Your task to perform on an android device: install app "Facebook Messenger" Image 0: 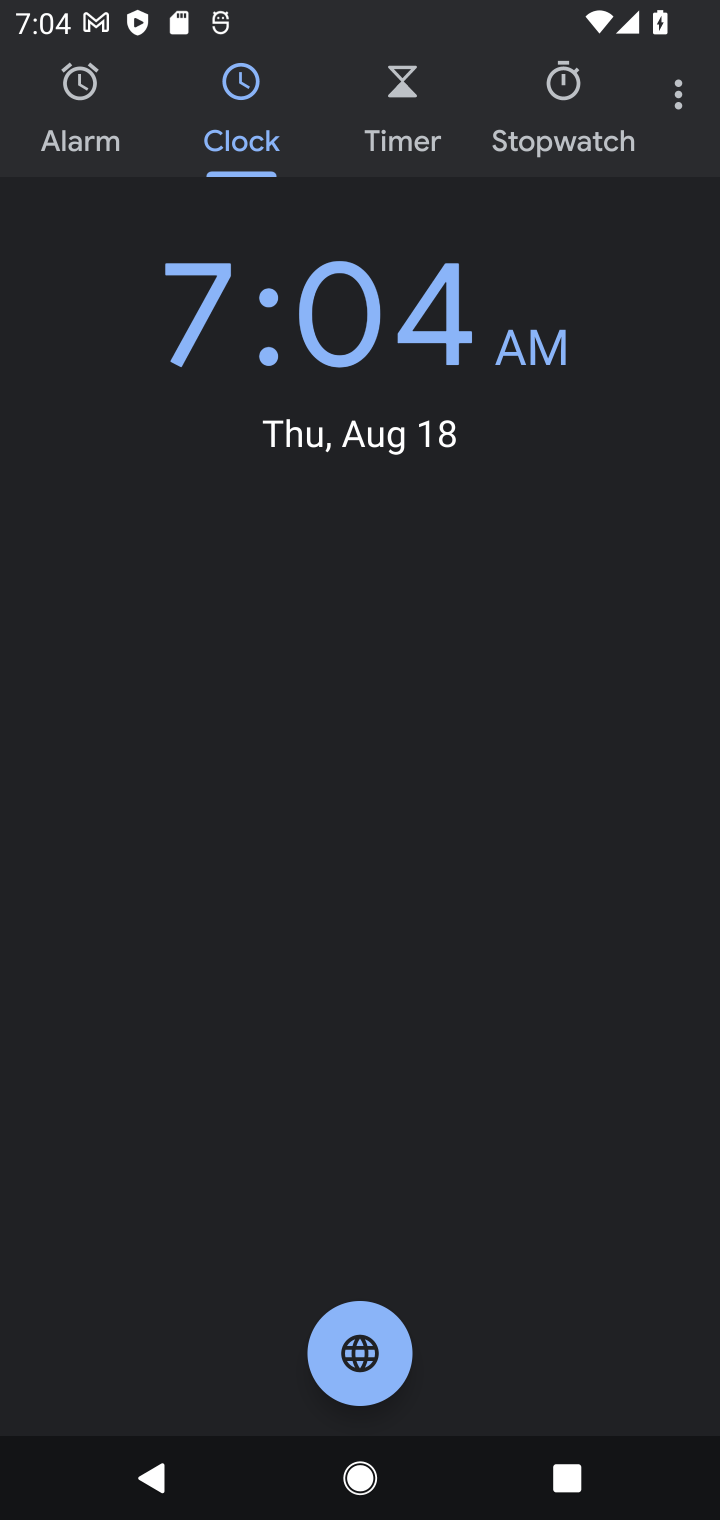
Step 0: press back button
Your task to perform on an android device: install app "Facebook Messenger" Image 1: 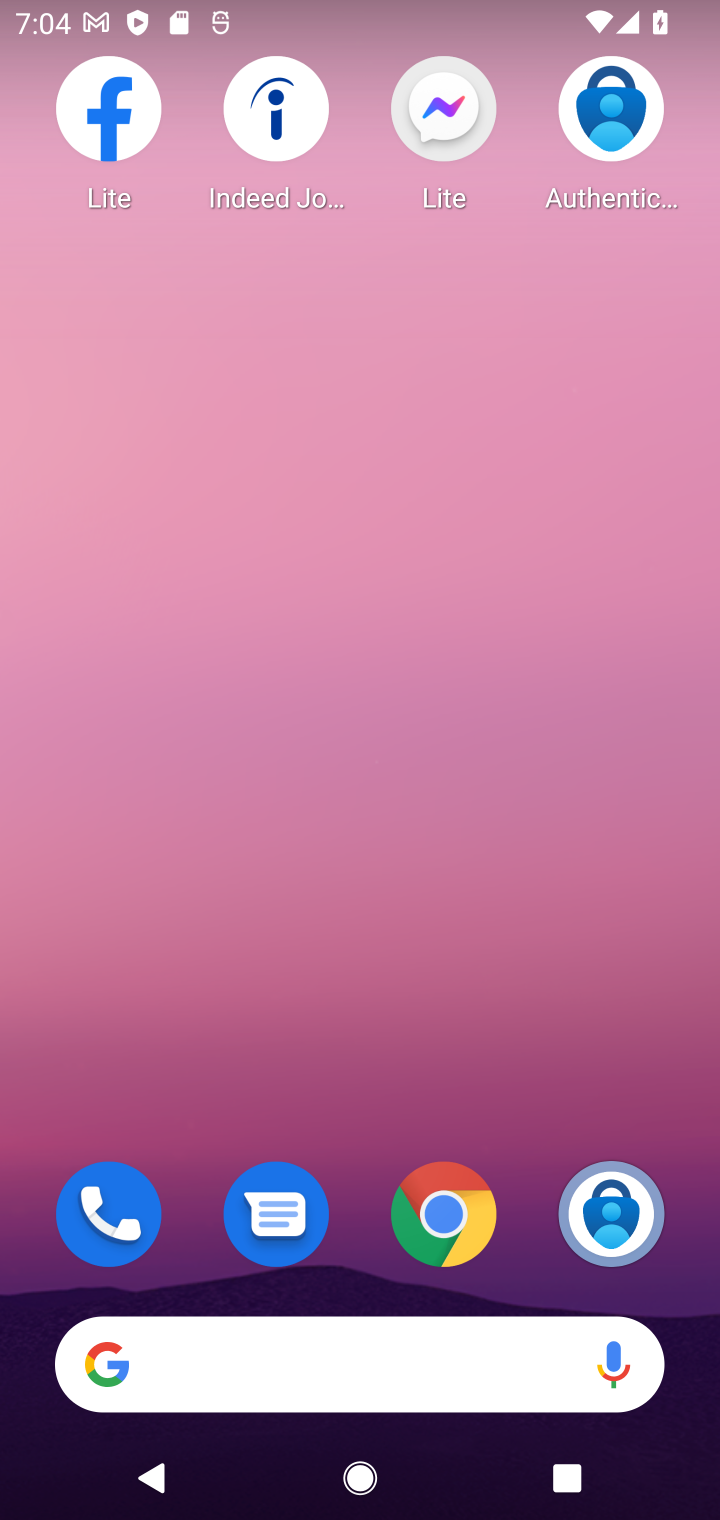
Step 1: drag from (374, 861) to (486, 103)
Your task to perform on an android device: install app "Facebook Messenger" Image 2: 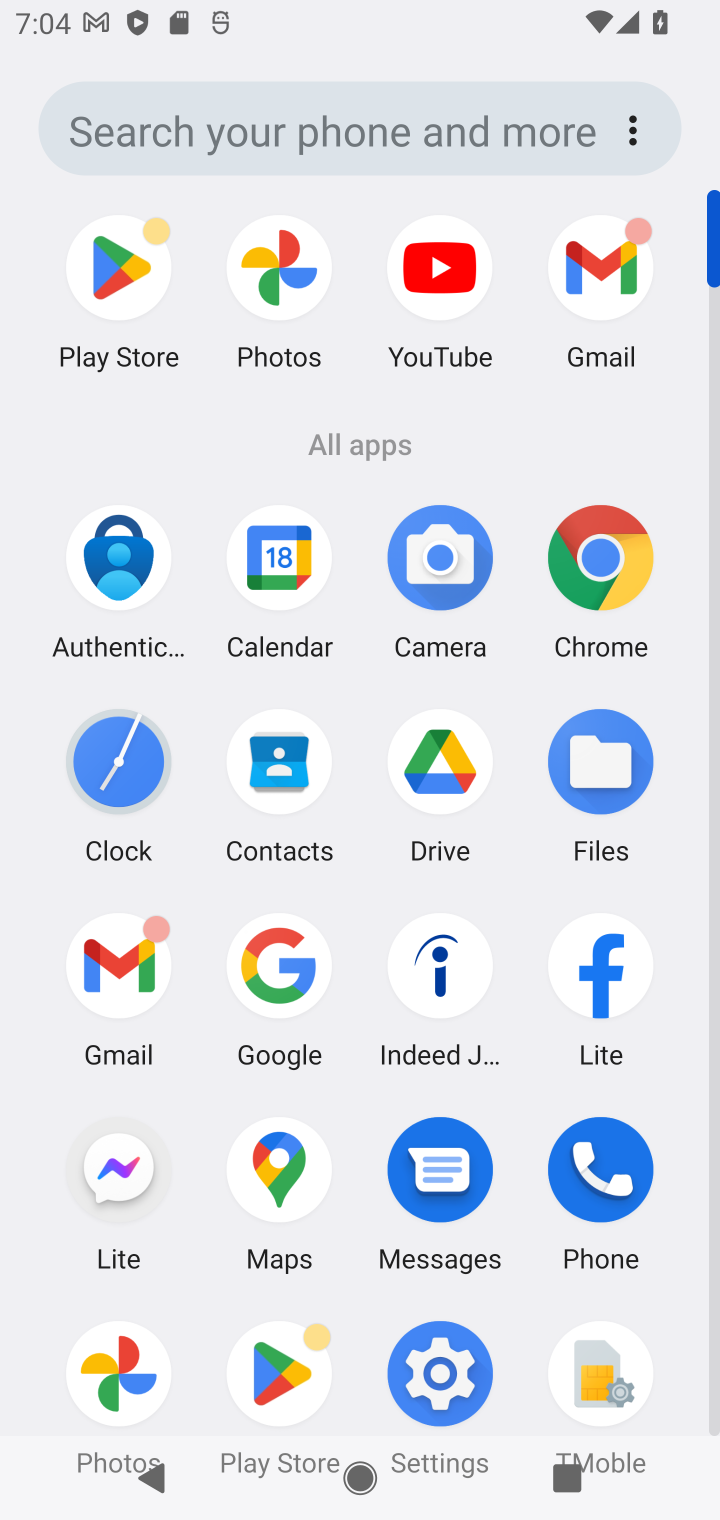
Step 2: click (270, 1388)
Your task to perform on an android device: install app "Facebook Messenger" Image 3: 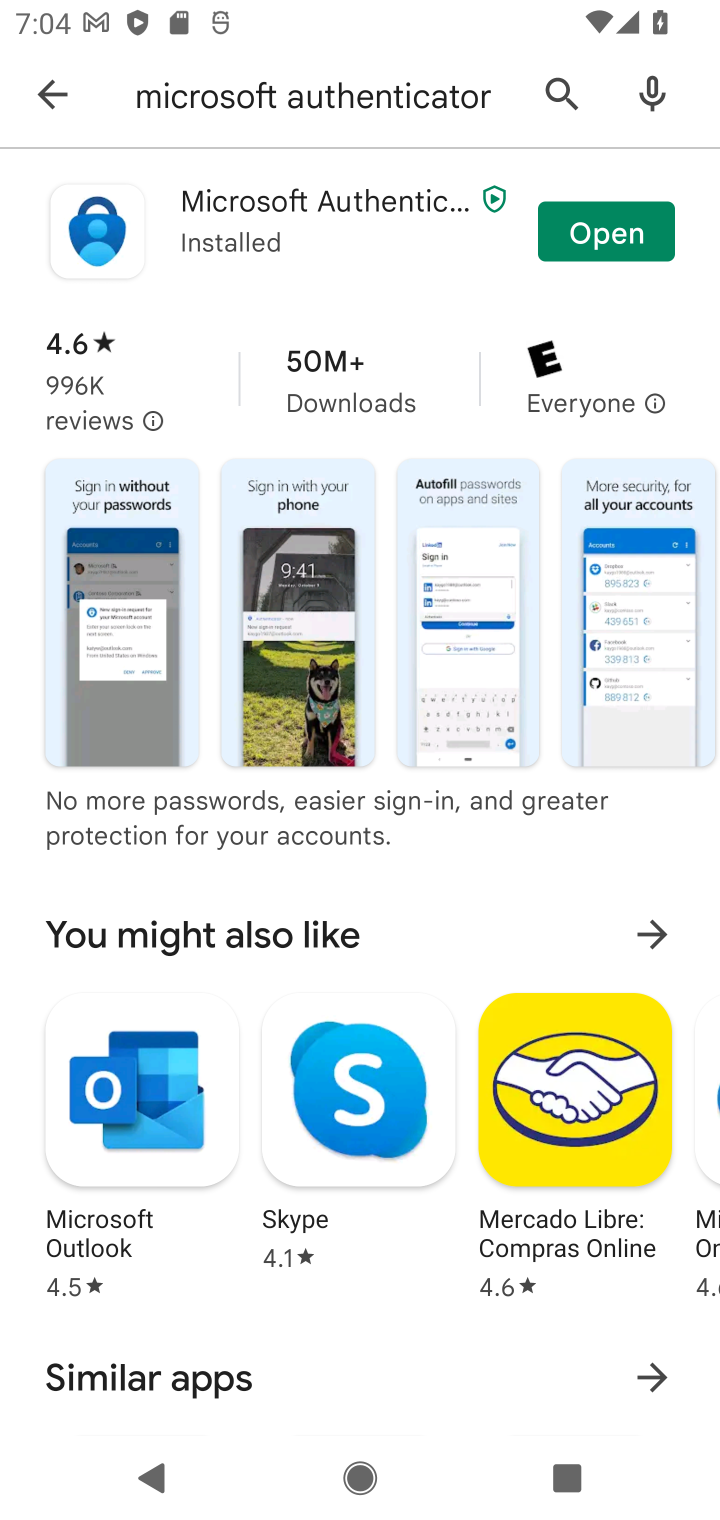
Step 3: click (567, 72)
Your task to perform on an android device: install app "Facebook Messenger" Image 4: 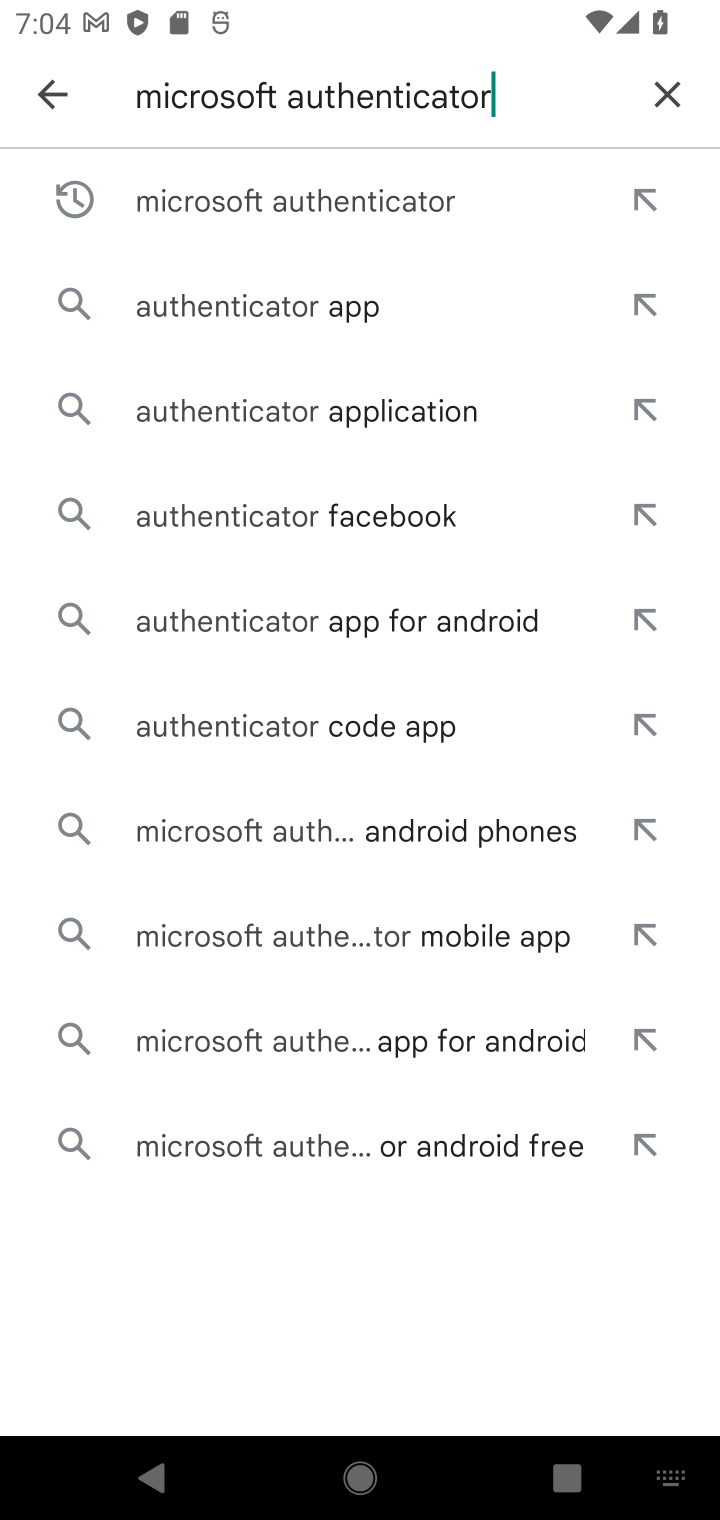
Step 4: click (653, 80)
Your task to perform on an android device: install app "Facebook Messenger" Image 5: 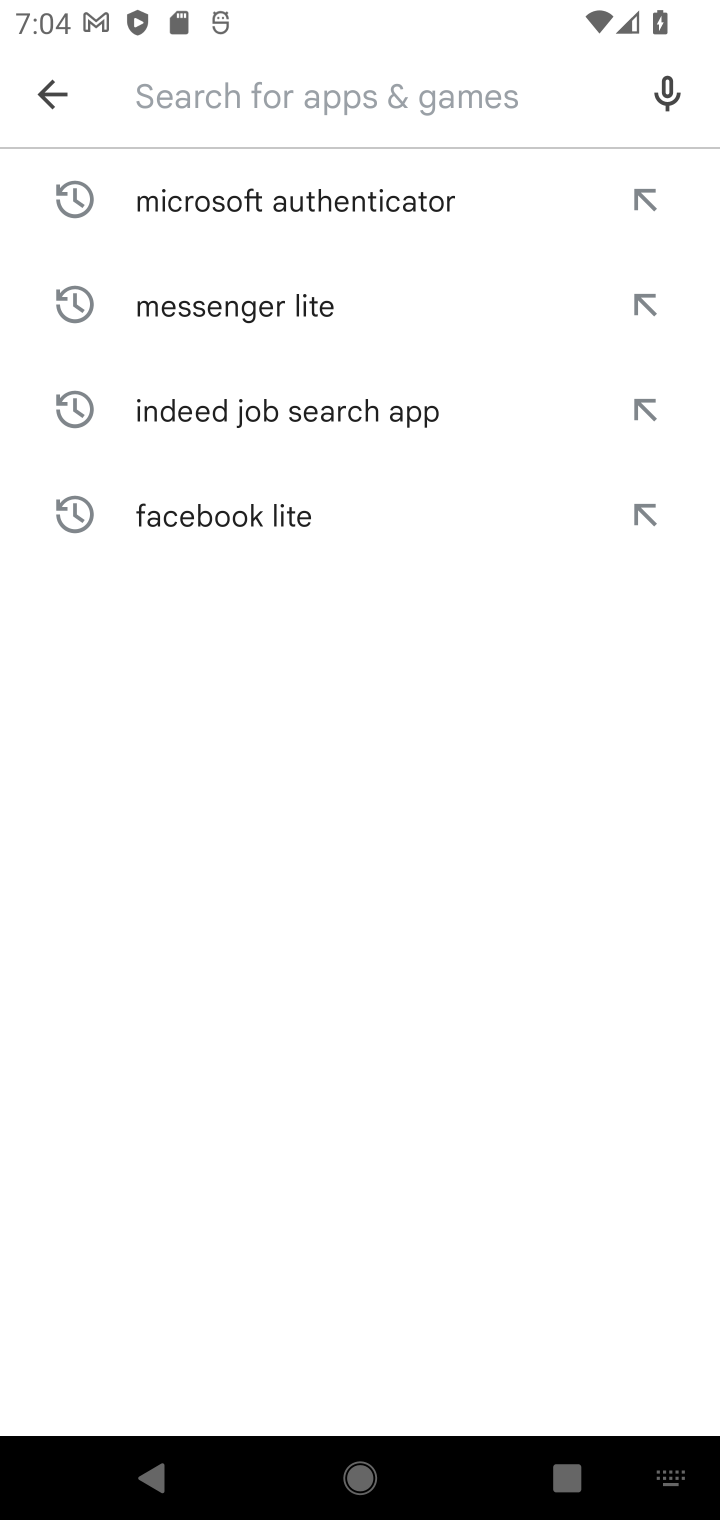
Step 5: click (374, 92)
Your task to perform on an android device: install app "Facebook Messenger" Image 6: 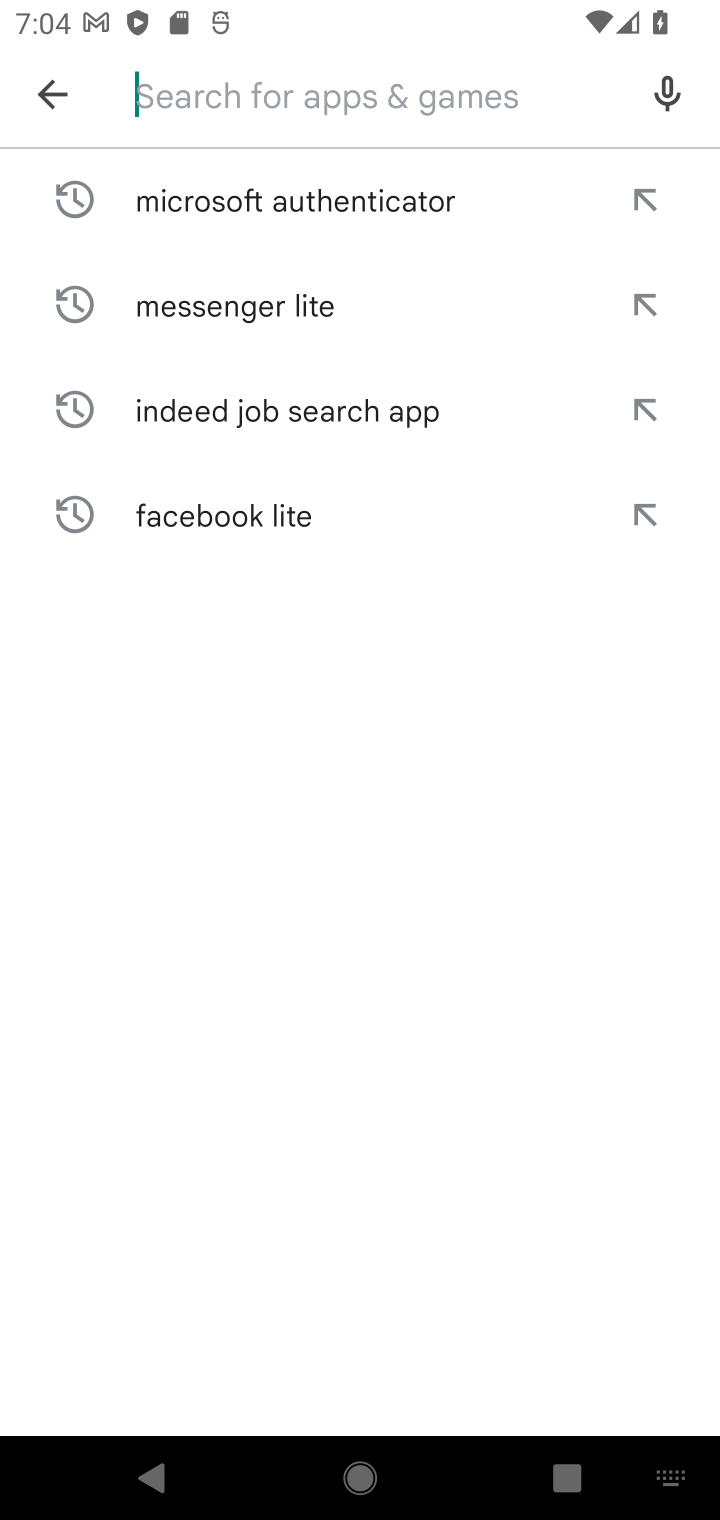
Step 6: type "facebook messenger"
Your task to perform on an android device: install app "Facebook Messenger" Image 7: 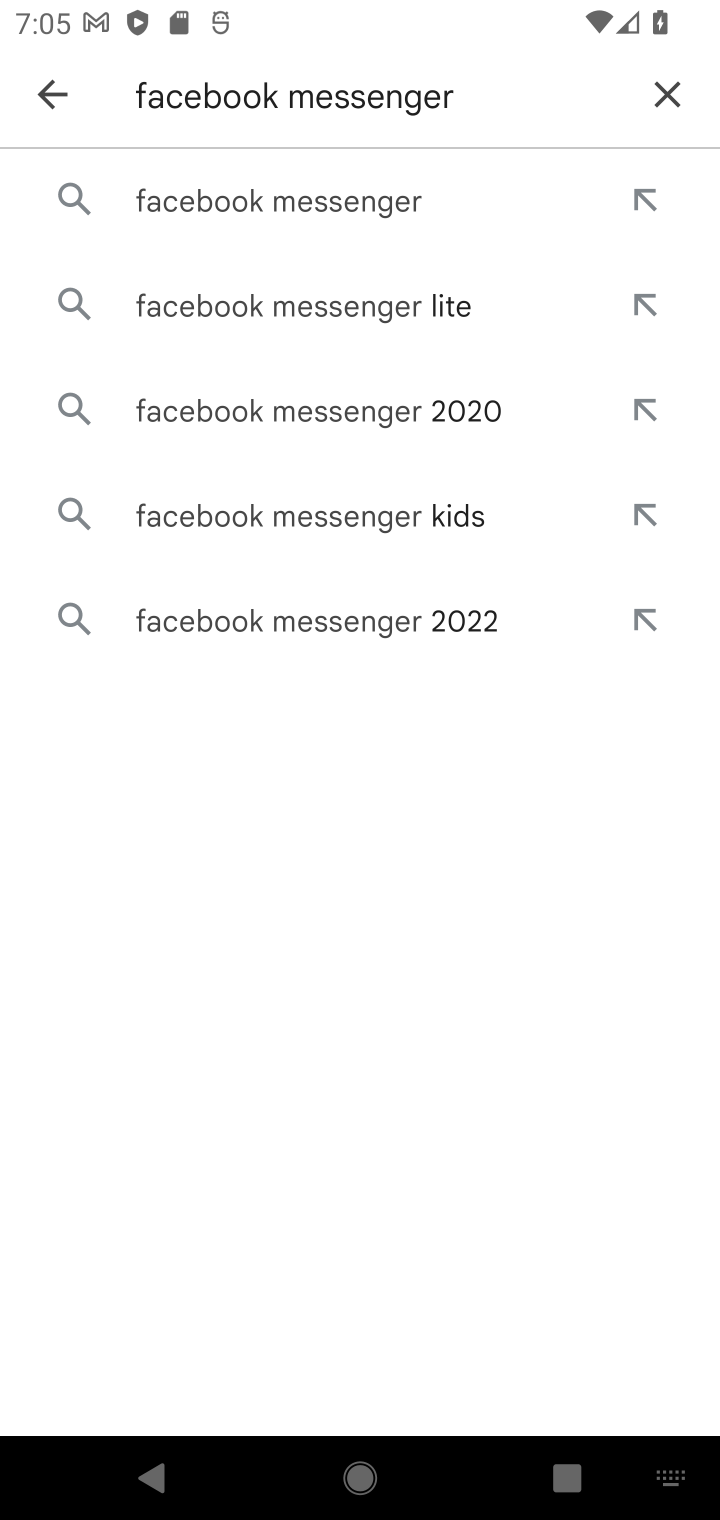
Step 7: click (336, 206)
Your task to perform on an android device: install app "Facebook Messenger" Image 8: 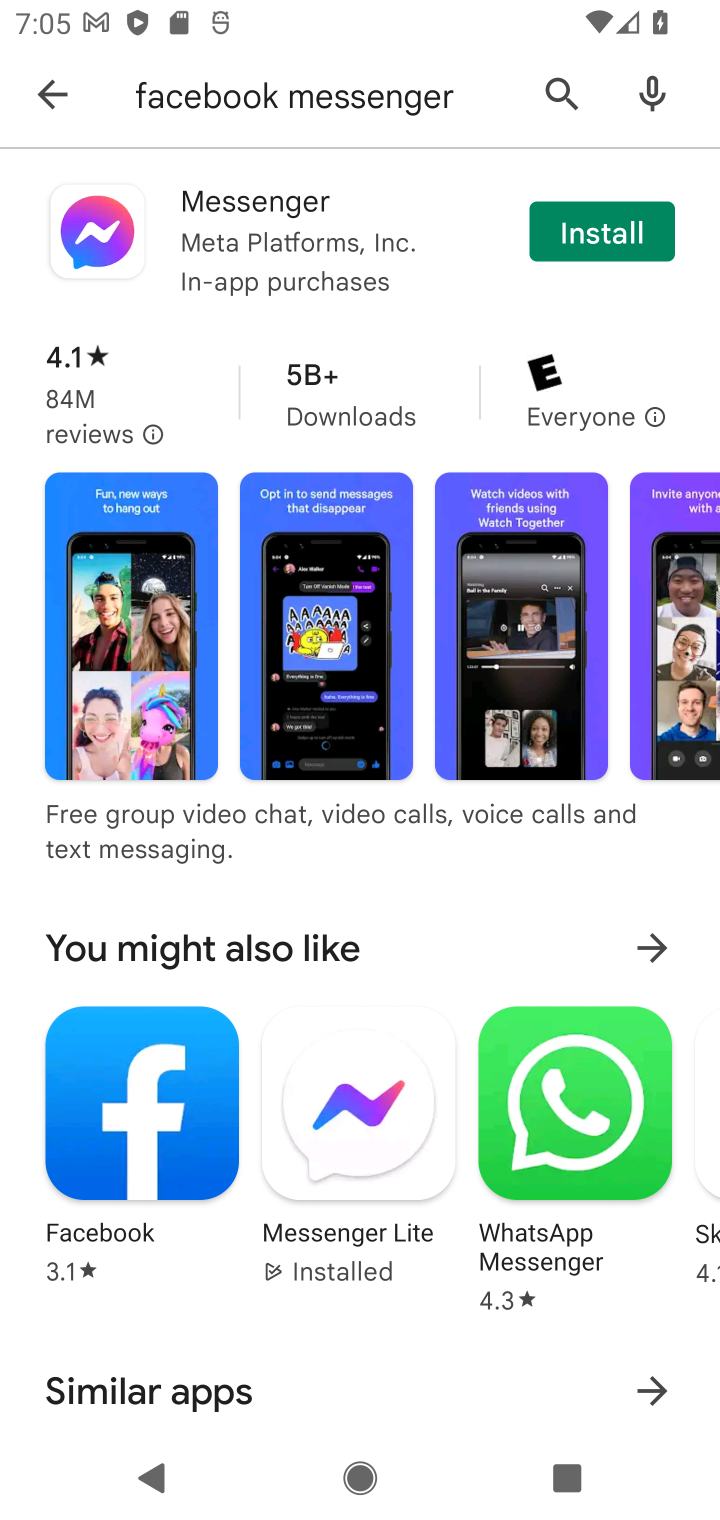
Step 8: click (551, 233)
Your task to perform on an android device: install app "Facebook Messenger" Image 9: 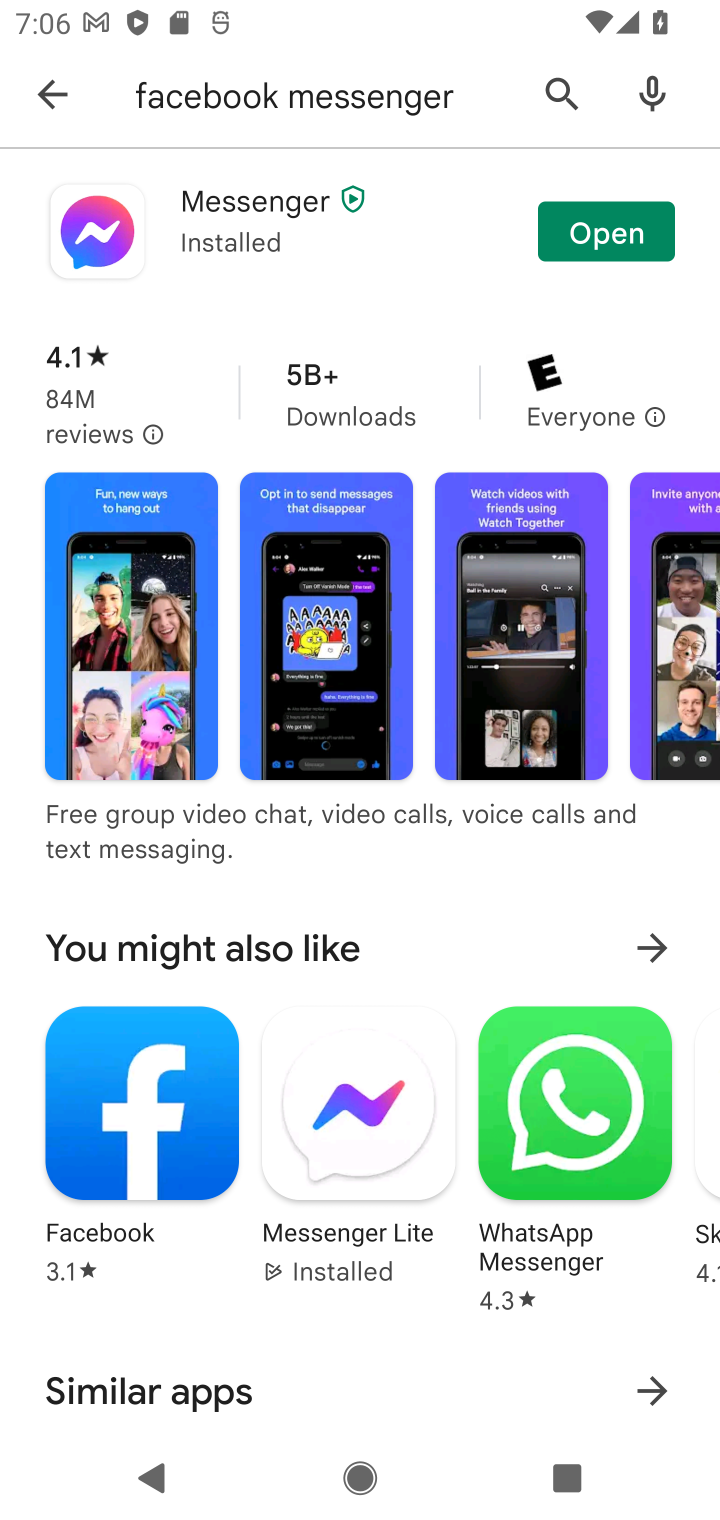
Step 9: task complete